Your task to perform on an android device: set the stopwatch Image 0: 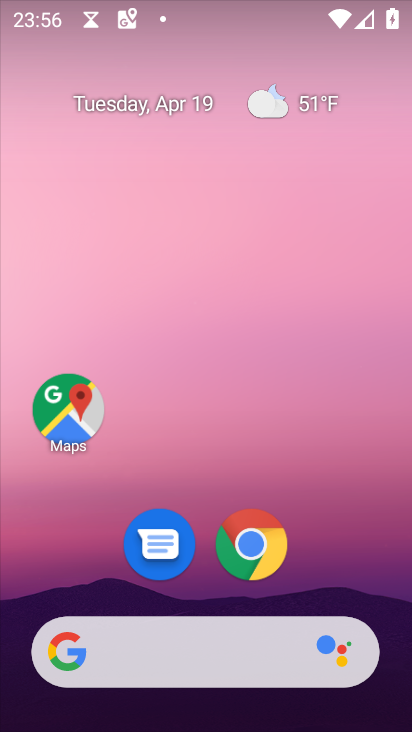
Step 0: drag from (342, 523) to (349, 289)
Your task to perform on an android device: set the stopwatch Image 1: 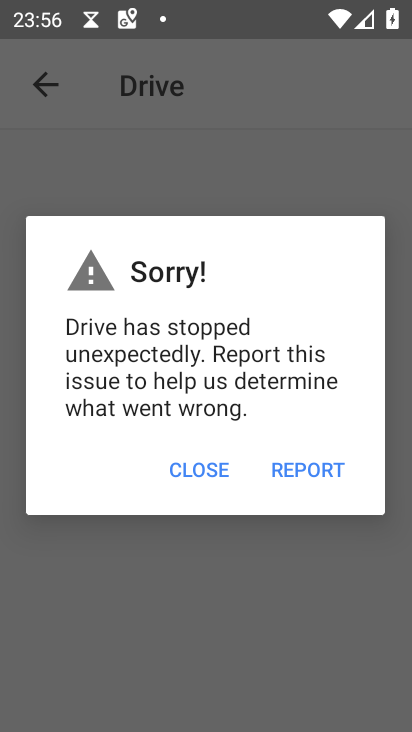
Step 1: press home button
Your task to perform on an android device: set the stopwatch Image 2: 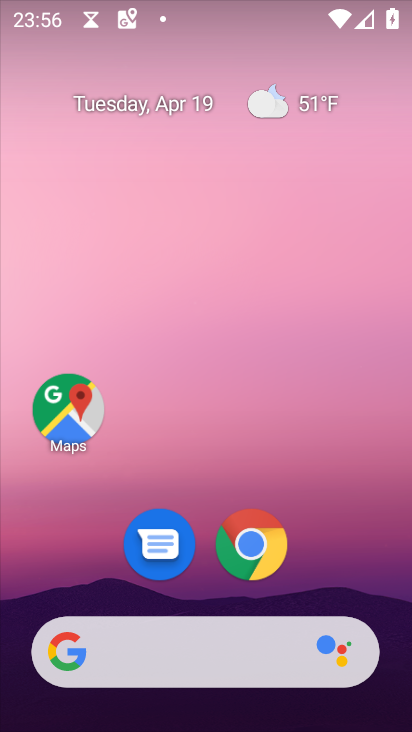
Step 2: drag from (312, 575) to (364, 104)
Your task to perform on an android device: set the stopwatch Image 3: 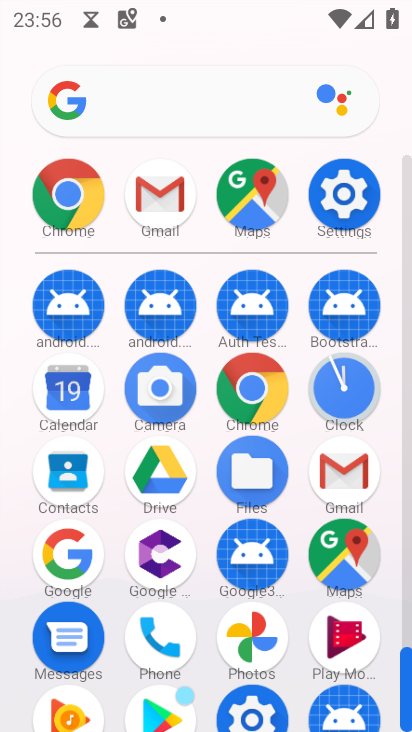
Step 3: click (331, 385)
Your task to perform on an android device: set the stopwatch Image 4: 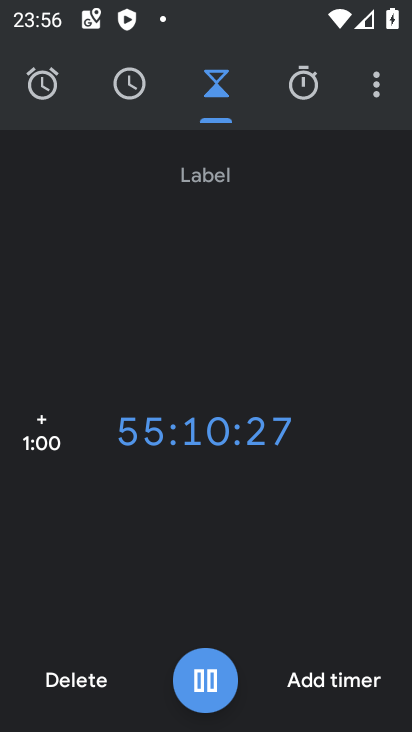
Step 4: click (300, 87)
Your task to perform on an android device: set the stopwatch Image 5: 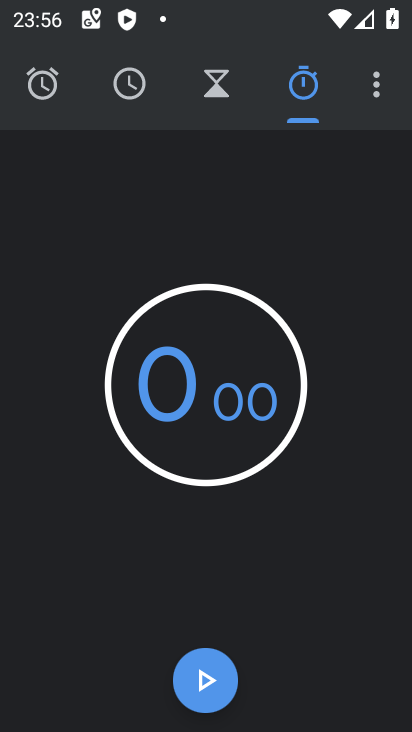
Step 5: click (189, 689)
Your task to perform on an android device: set the stopwatch Image 6: 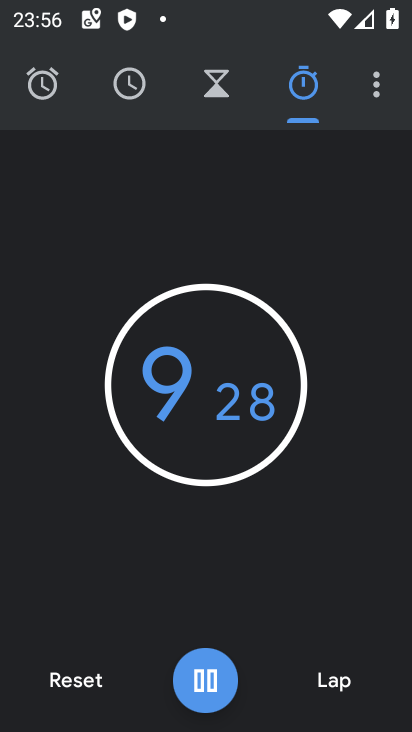
Step 6: task complete